Your task to perform on an android device: set the timer Image 0: 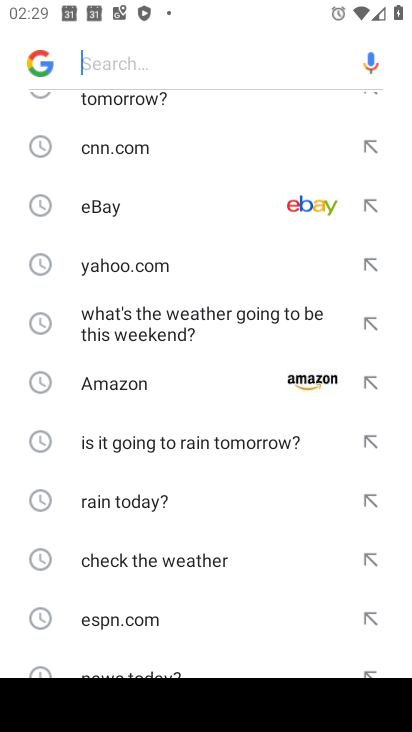
Step 0: press home button
Your task to perform on an android device: set the timer Image 1: 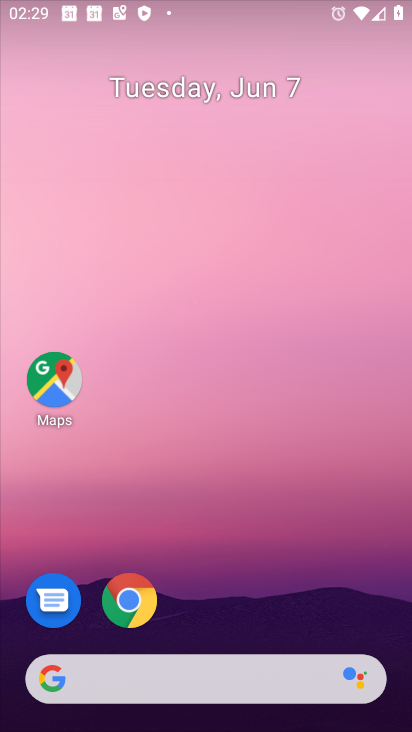
Step 1: drag from (238, 714) to (239, 336)
Your task to perform on an android device: set the timer Image 2: 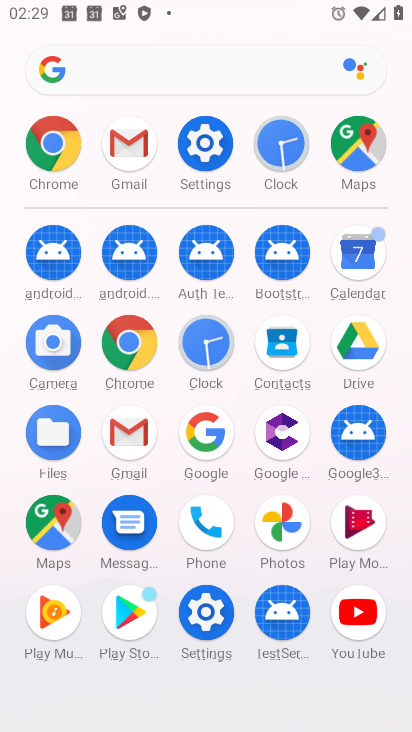
Step 2: click (202, 344)
Your task to perform on an android device: set the timer Image 3: 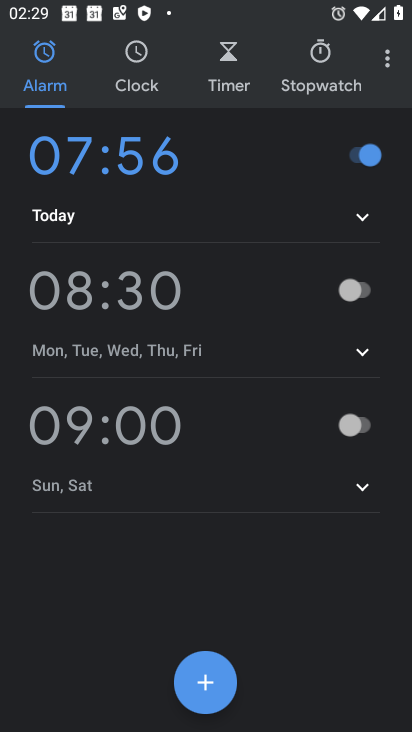
Step 3: click (239, 51)
Your task to perform on an android device: set the timer Image 4: 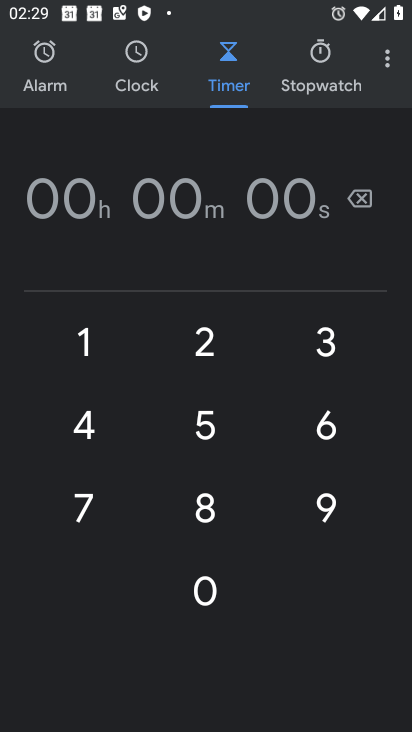
Step 4: click (209, 344)
Your task to perform on an android device: set the timer Image 5: 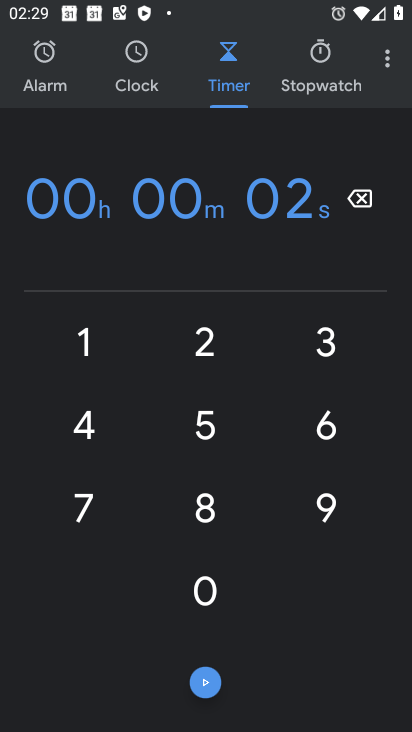
Step 5: click (202, 427)
Your task to perform on an android device: set the timer Image 6: 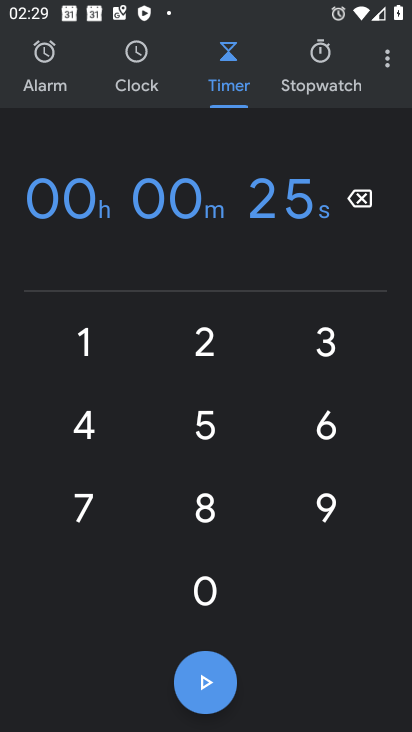
Step 6: click (203, 518)
Your task to perform on an android device: set the timer Image 7: 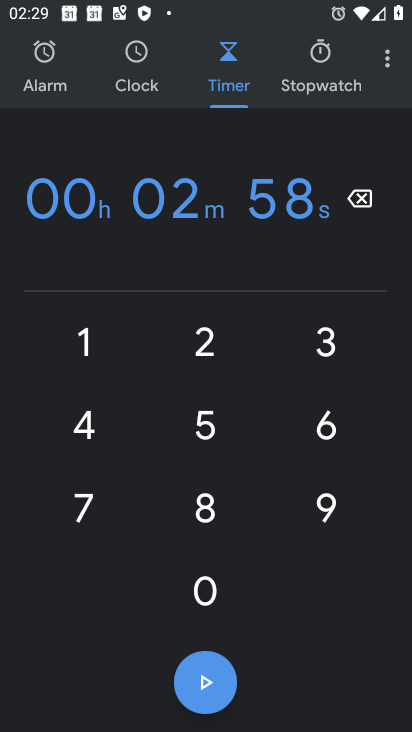
Step 7: click (203, 694)
Your task to perform on an android device: set the timer Image 8: 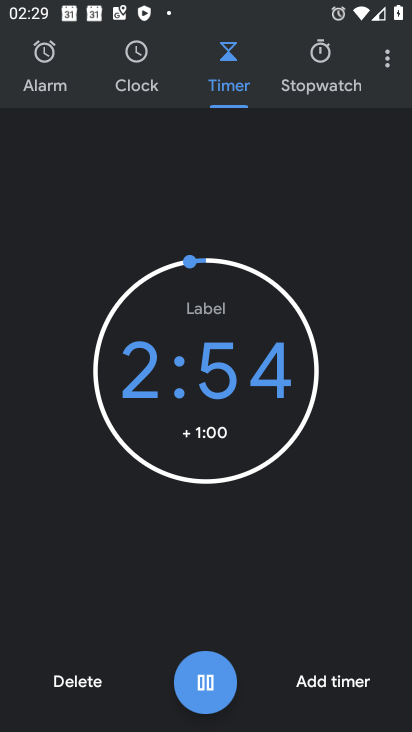
Step 8: task complete